Your task to perform on an android device: turn off smart reply in the gmail app Image 0: 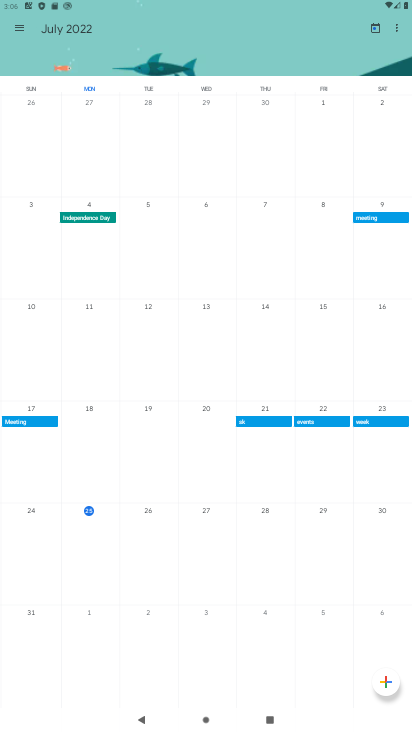
Step 0: press home button
Your task to perform on an android device: turn off smart reply in the gmail app Image 1: 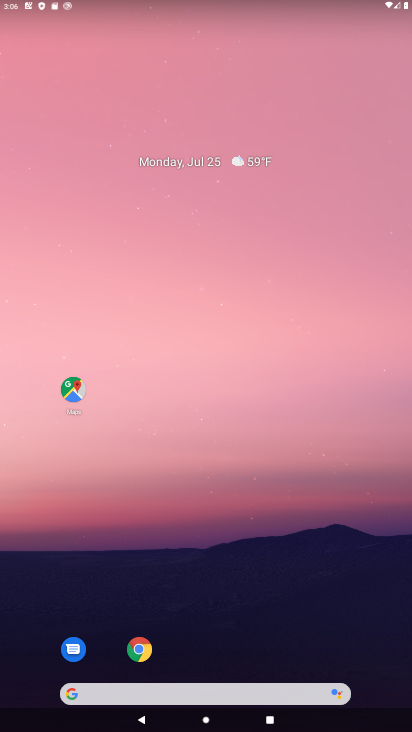
Step 1: drag from (243, 684) to (257, 251)
Your task to perform on an android device: turn off smart reply in the gmail app Image 2: 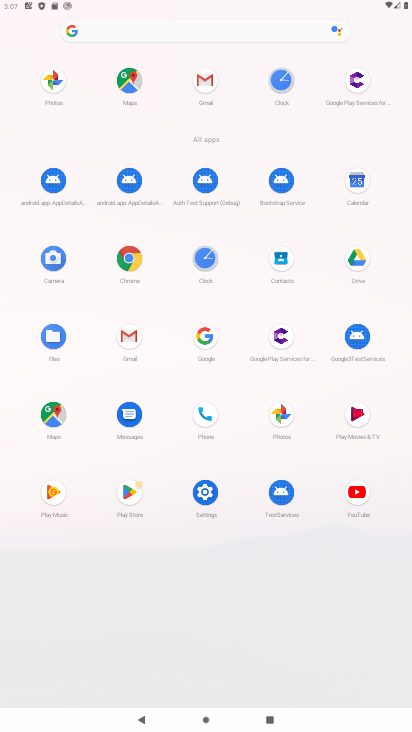
Step 2: click (210, 74)
Your task to perform on an android device: turn off smart reply in the gmail app Image 3: 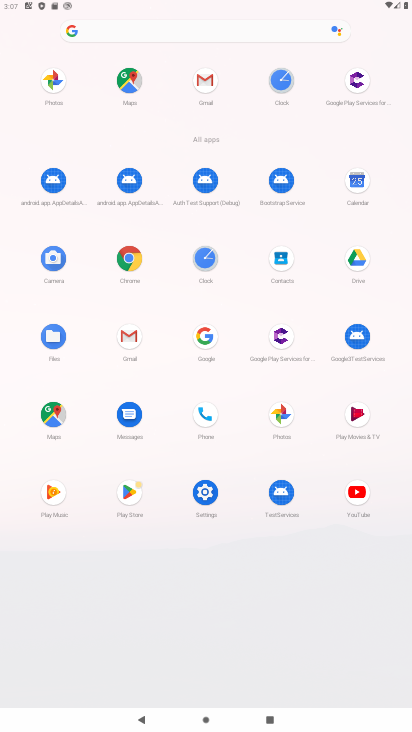
Step 3: click (210, 74)
Your task to perform on an android device: turn off smart reply in the gmail app Image 4: 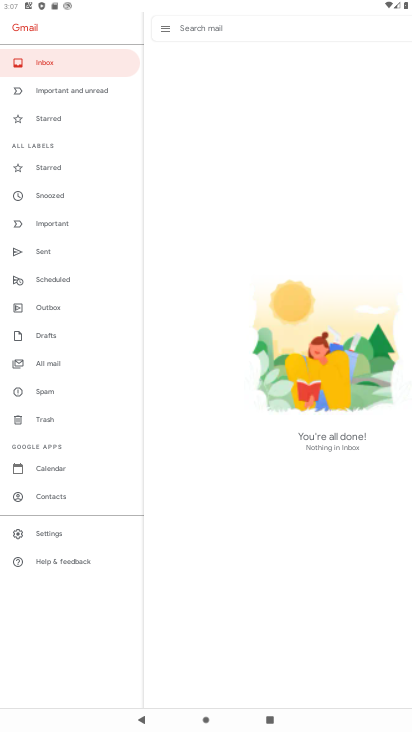
Step 4: click (62, 535)
Your task to perform on an android device: turn off smart reply in the gmail app Image 5: 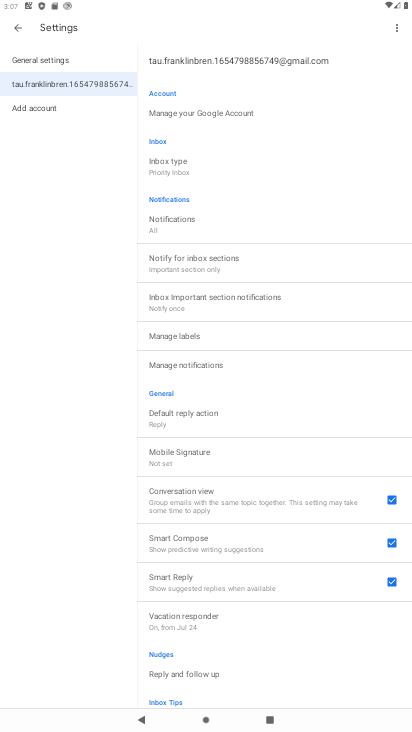
Step 5: click (397, 583)
Your task to perform on an android device: turn off smart reply in the gmail app Image 6: 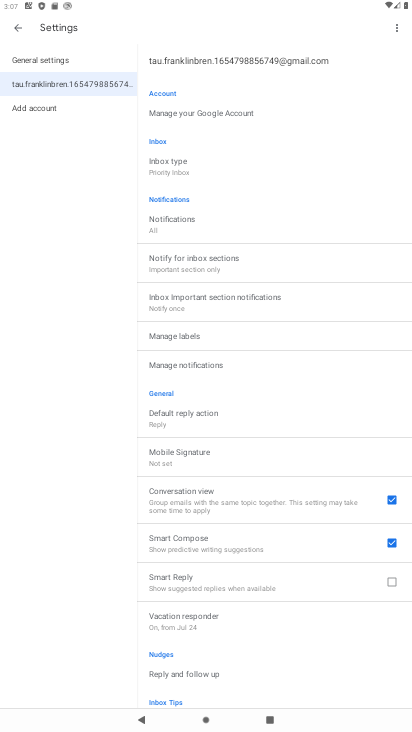
Step 6: task complete